Your task to perform on an android device: toggle pop-ups in chrome Image 0: 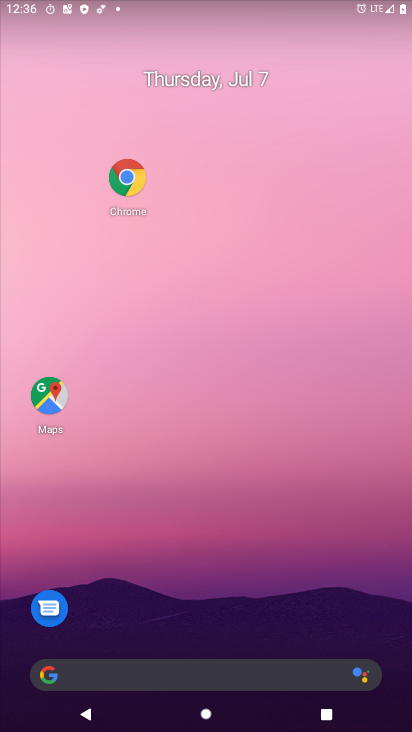
Step 0: click (128, 178)
Your task to perform on an android device: toggle pop-ups in chrome Image 1: 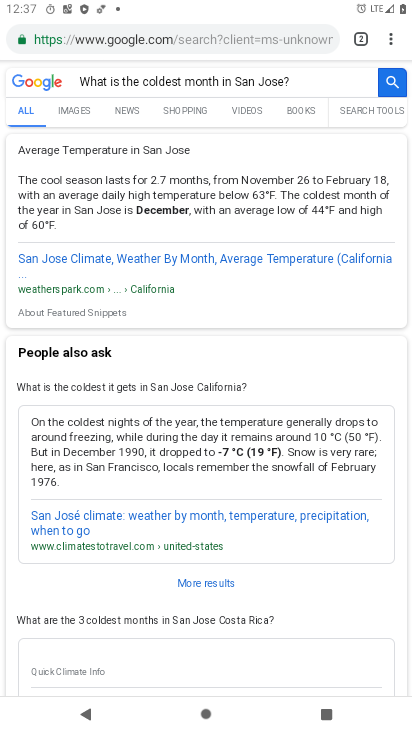
Step 1: click (382, 41)
Your task to perform on an android device: toggle pop-ups in chrome Image 2: 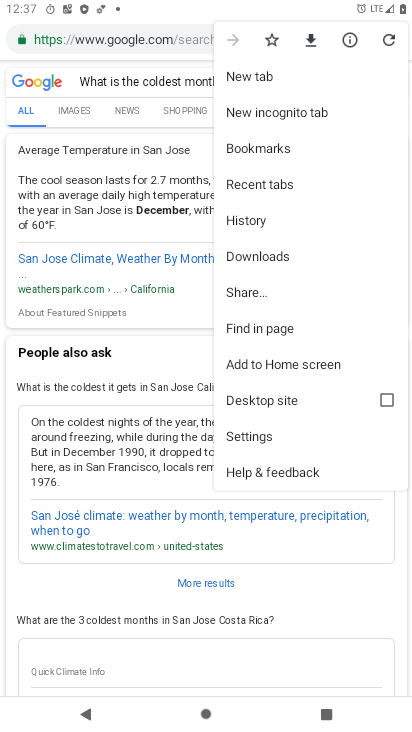
Step 2: click (238, 434)
Your task to perform on an android device: toggle pop-ups in chrome Image 3: 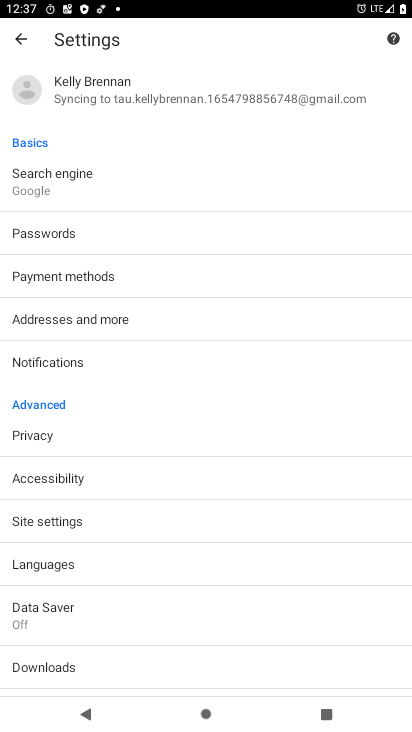
Step 3: click (28, 520)
Your task to perform on an android device: toggle pop-ups in chrome Image 4: 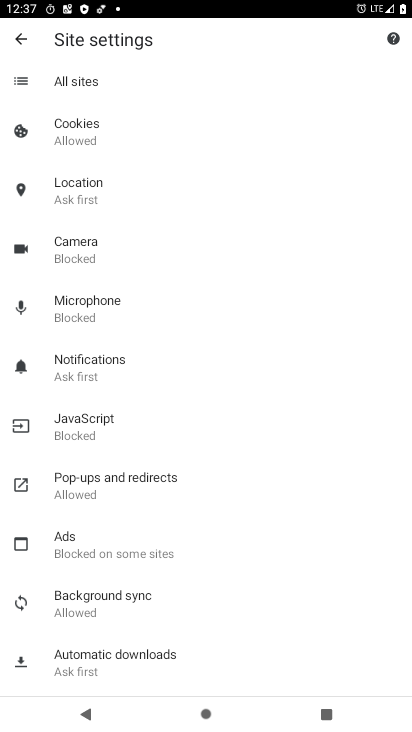
Step 4: click (90, 494)
Your task to perform on an android device: toggle pop-ups in chrome Image 5: 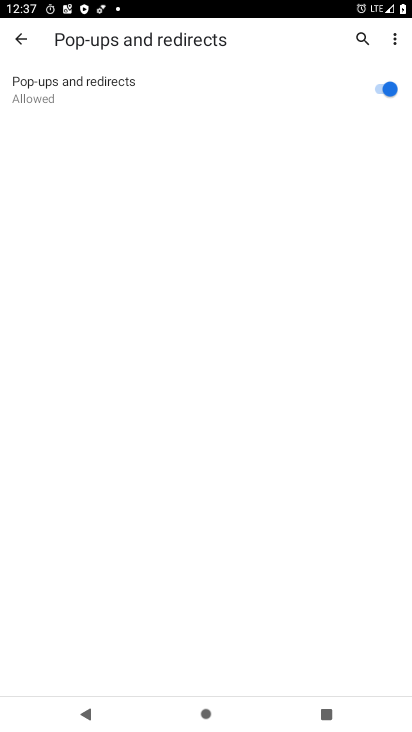
Step 5: click (380, 85)
Your task to perform on an android device: toggle pop-ups in chrome Image 6: 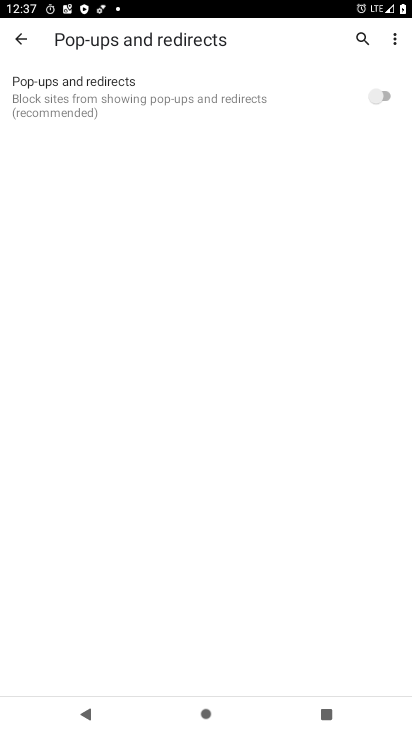
Step 6: task complete